Your task to perform on an android device: toggle wifi Image 0: 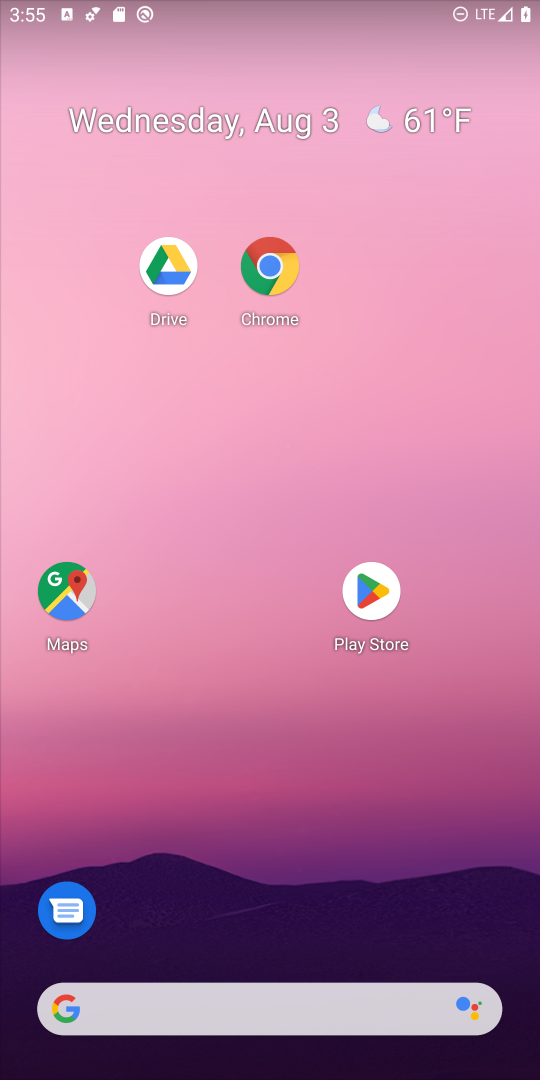
Step 0: drag from (336, 896) to (363, 115)
Your task to perform on an android device: toggle wifi Image 1: 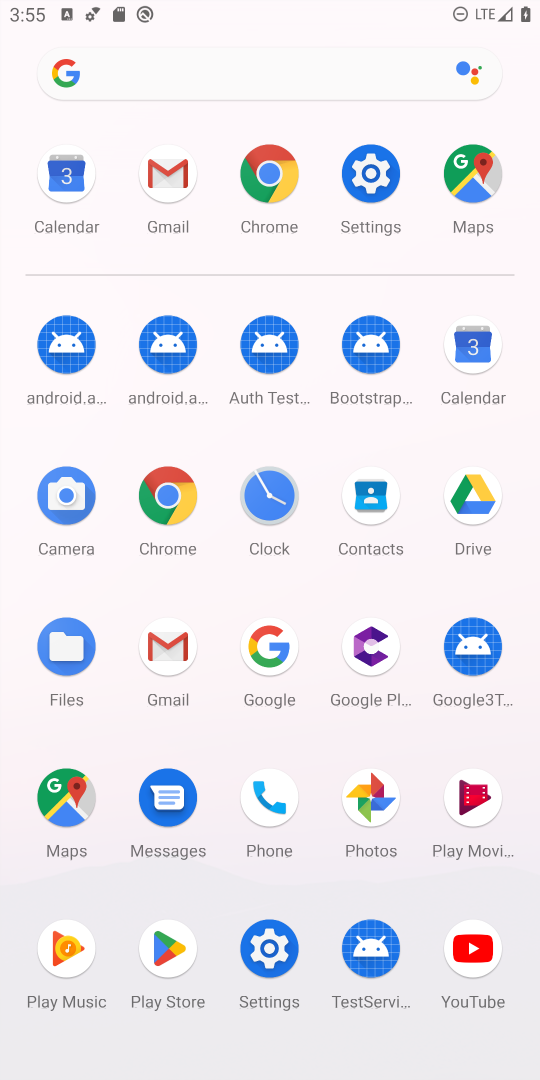
Step 1: click (378, 167)
Your task to perform on an android device: toggle wifi Image 2: 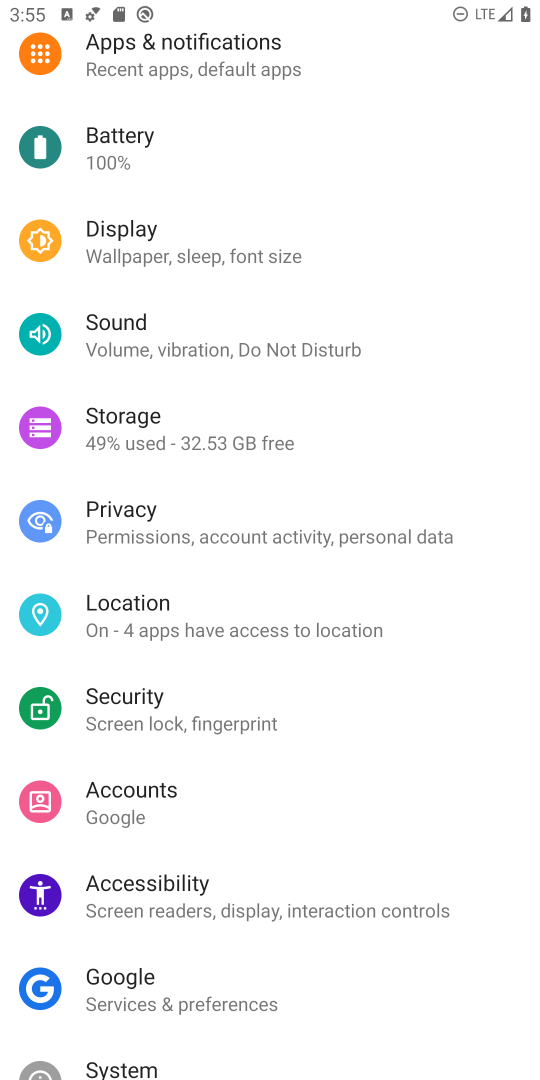
Step 2: drag from (246, 177) to (172, 900)
Your task to perform on an android device: toggle wifi Image 3: 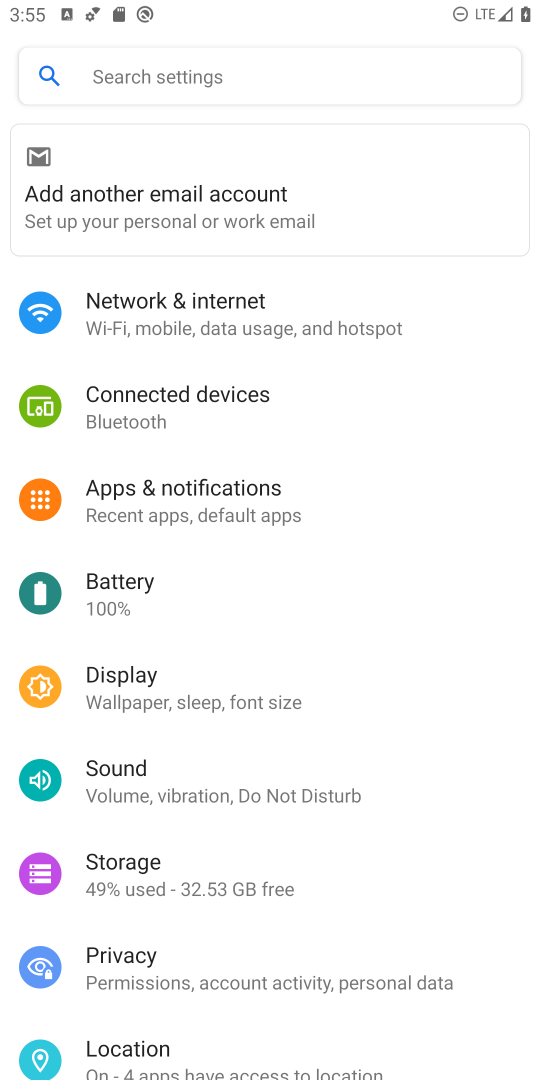
Step 3: click (231, 326)
Your task to perform on an android device: toggle wifi Image 4: 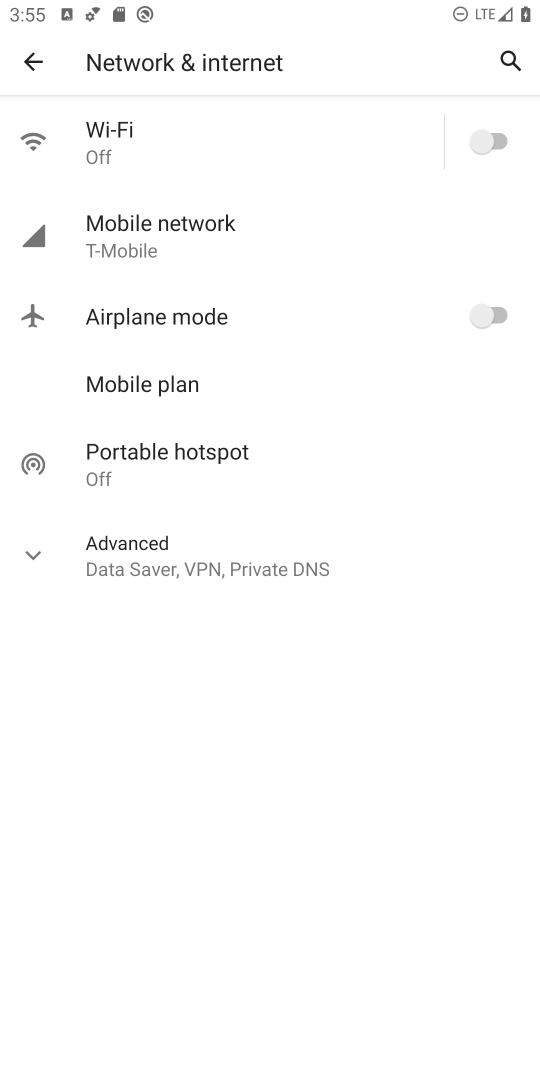
Step 4: click (489, 143)
Your task to perform on an android device: toggle wifi Image 5: 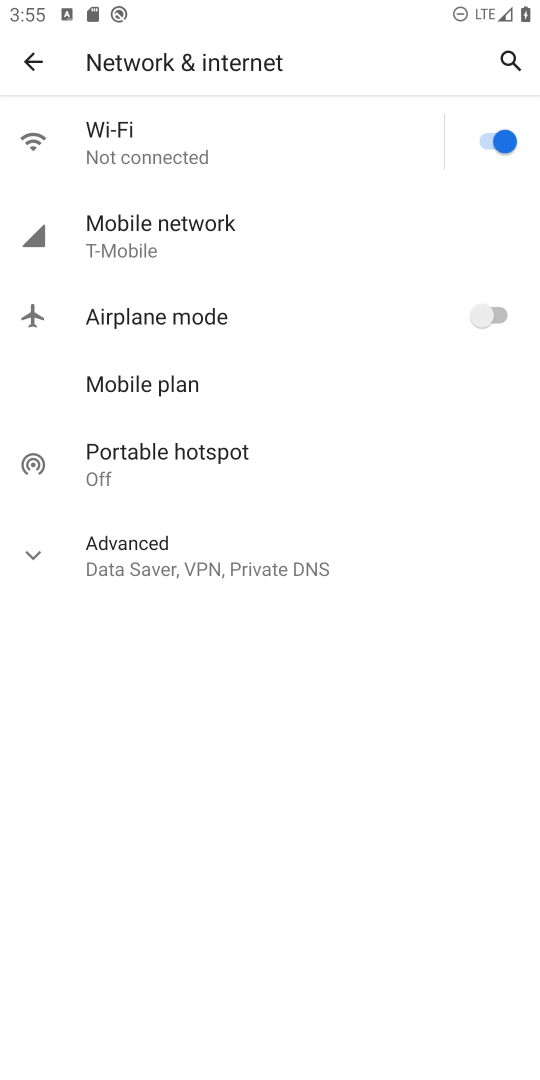
Step 5: task complete